Your task to perform on an android device: Turn off the flashlight Image 0: 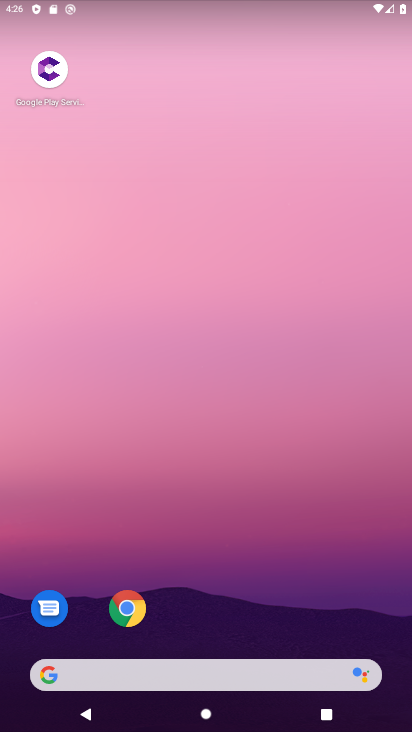
Step 0: drag from (156, 616) to (192, 92)
Your task to perform on an android device: Turn off the flashlight Image 1: 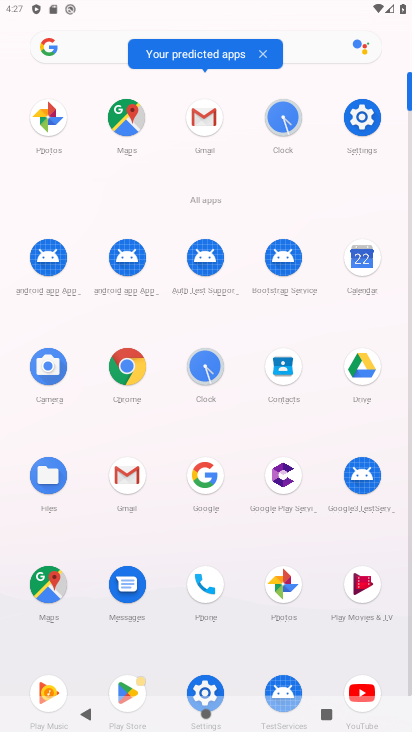
Step 1: click (365, 110)
Your task to perform on an android device: Turn off the flashlight Image 2: 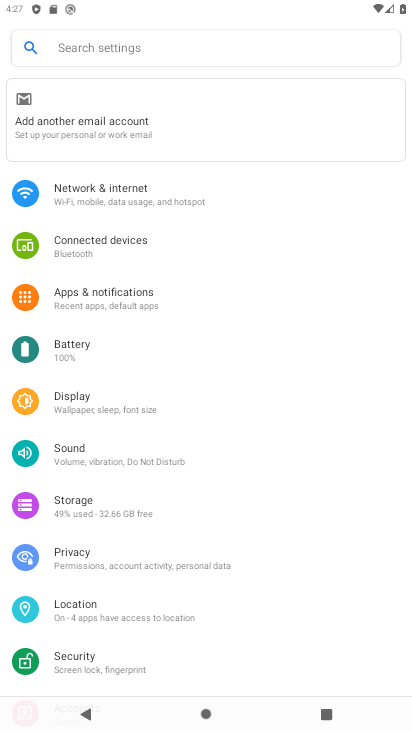
Step 2: task complete